Your task to perform on an android device: find photos in the google photos app Image 0: 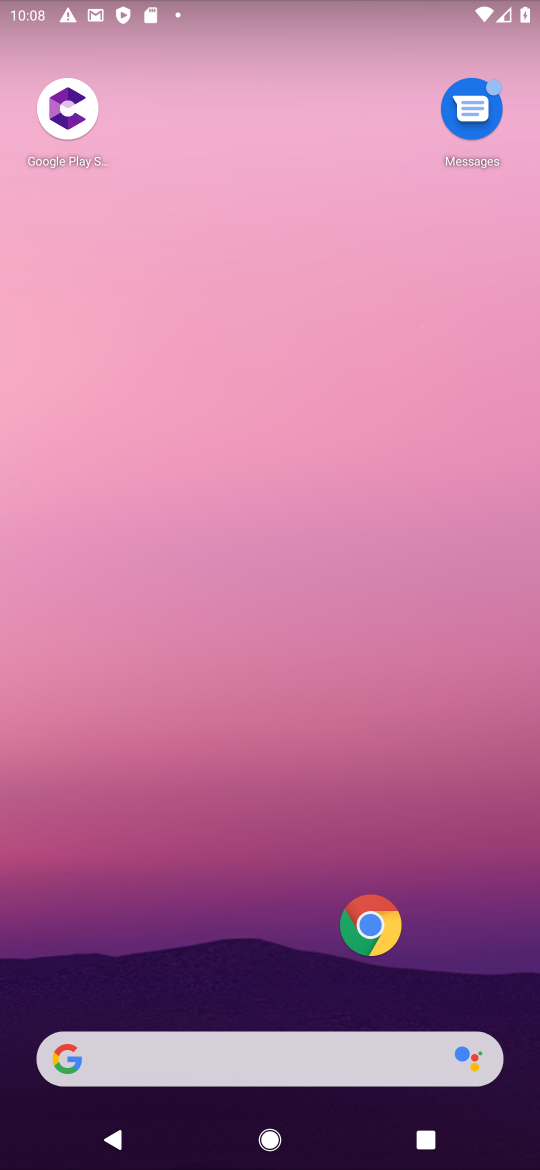
Step 0: drag from (173, 1025) to (152, 244)
Your task to perform on an android device: find photos in the google photos app Image 1: 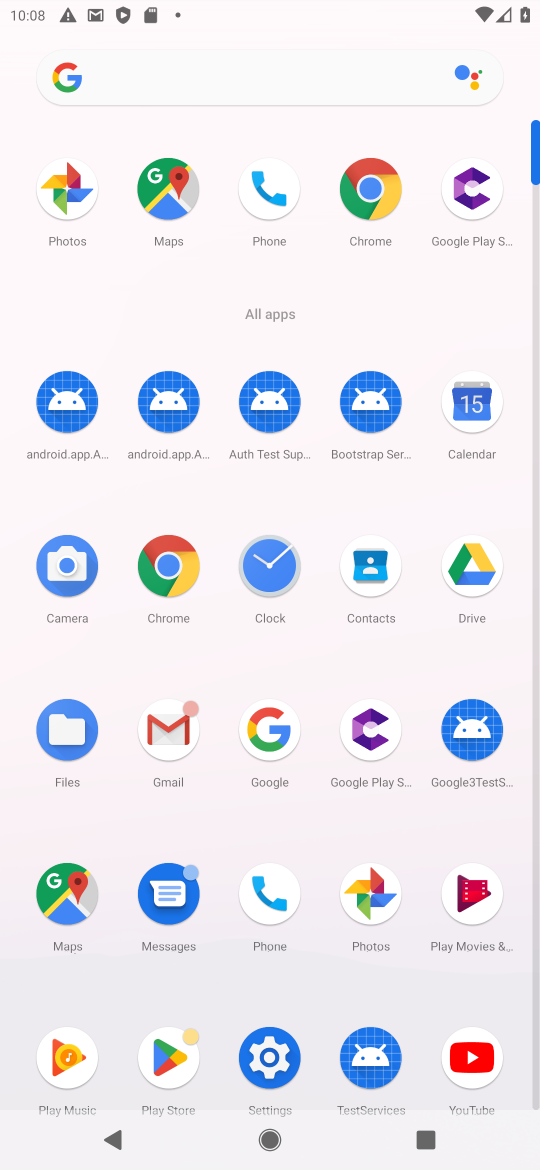
Step 1: click (372, 907)
Your task to perform on an android device: find photos in the google photos app Image 2: 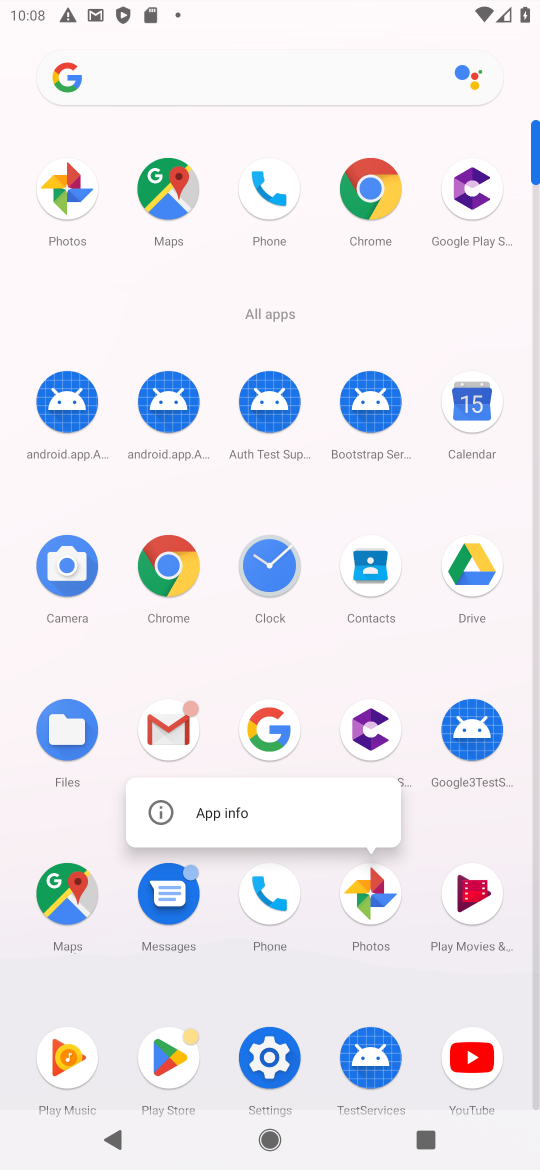
Step 2: click (372, 907)
Your task to perform on an android device: find photos in the google photos app Image 3: 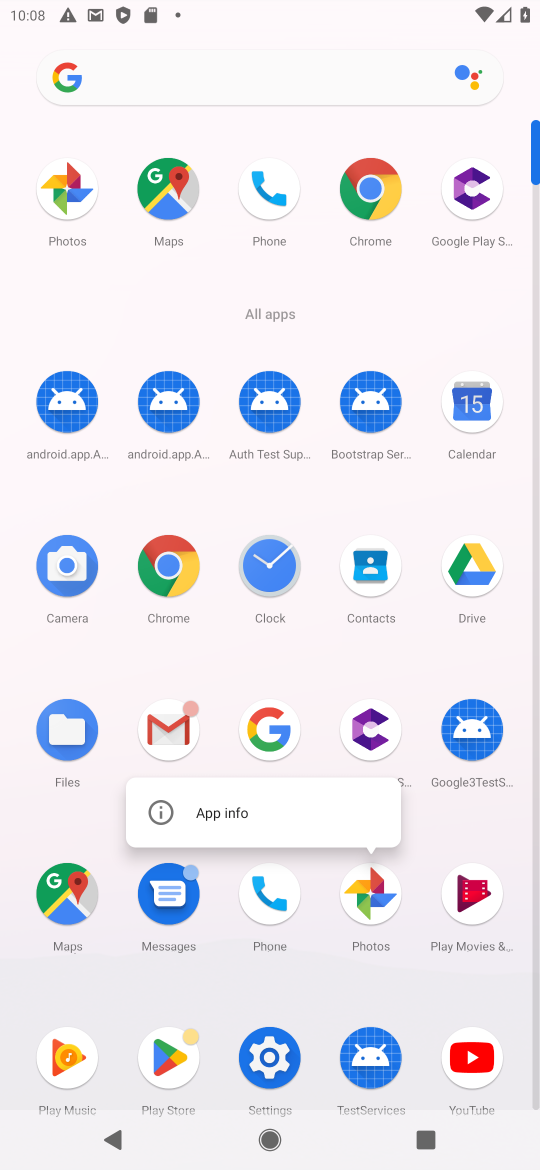
Step 3: click (372, 907)
Your task to perform on an android device: find photos in the google photos app Image 4: 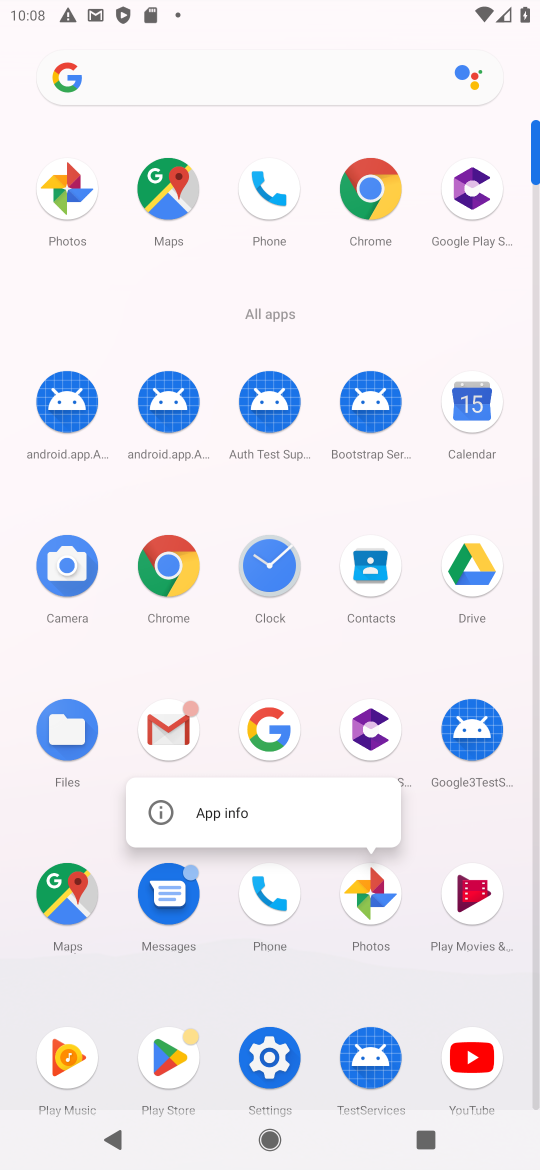
Step 4: click (372, 907)
Your task to perform on an android device: find photos in the google photos app Image 5: 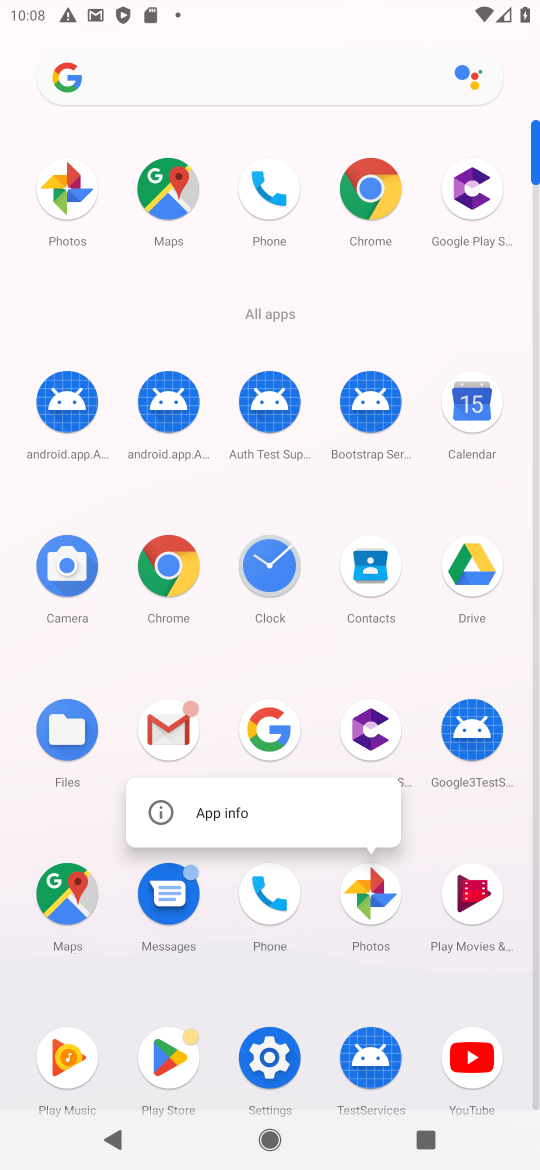
Step 5: click (372, 906)
Your task to perform on an android device: find photos in the google photos app Image 6: 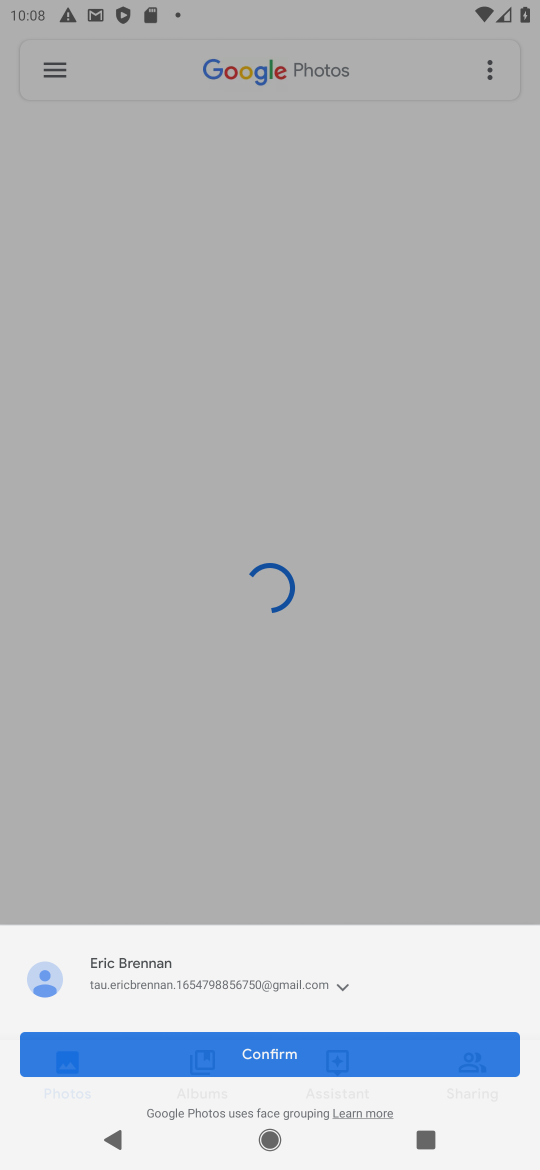
Step 6: task complete